Your task to perform on an android device: open a bookmark in the chrome app Image 0: 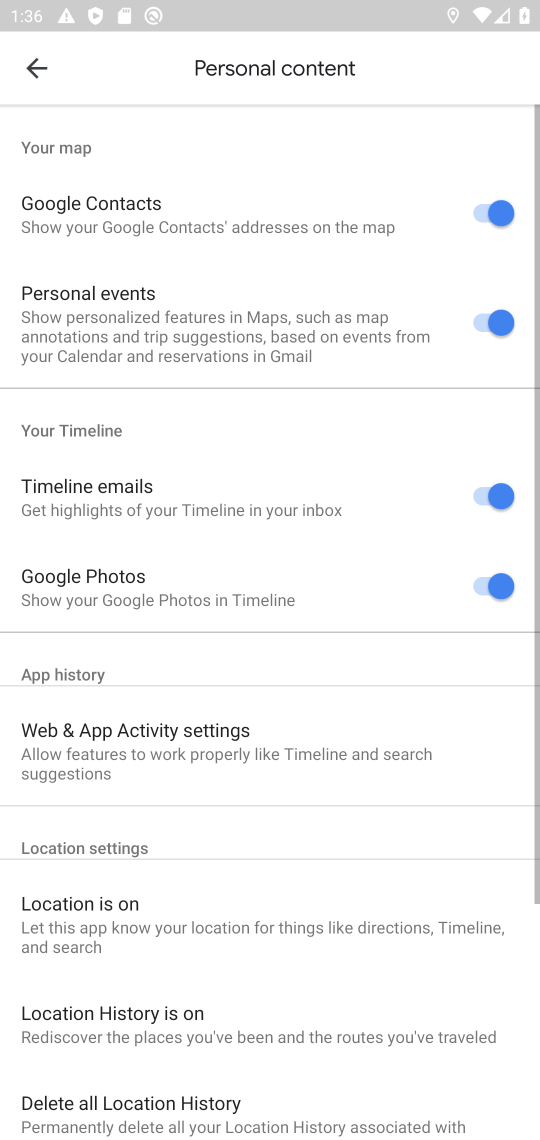
Step 0: press home button
Your task to perform on an android device: open a bookmark in the chrome app Image 1: 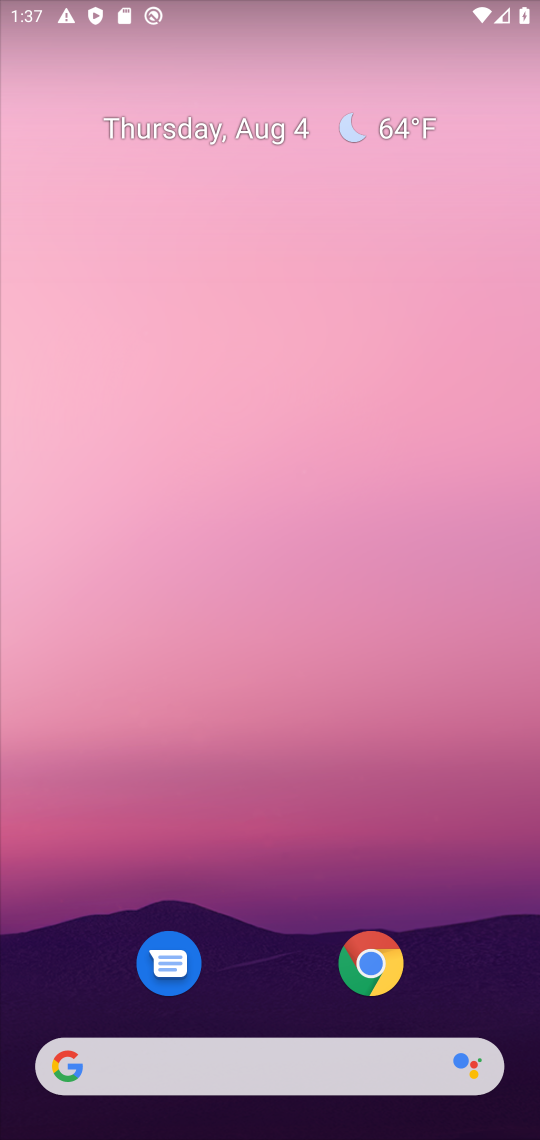
Step 1: click (374, 1005)
Your task to perform on an android device: open a bookmark in the chrome app Image 2: 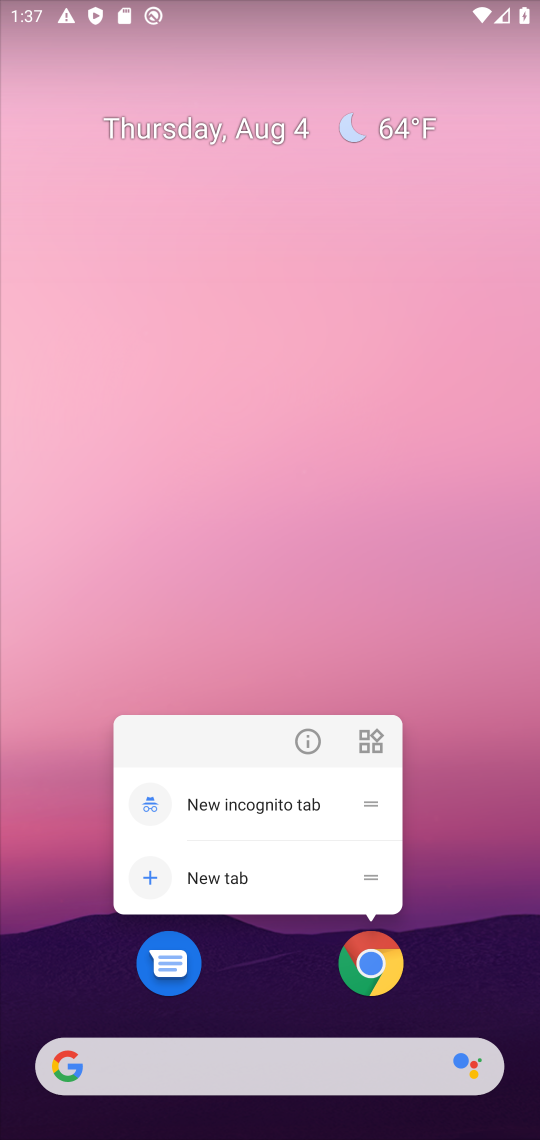
Step 2: click (374, 1005)
Your task to perform on an android device: open a bookmark in the chrome app Image 3: 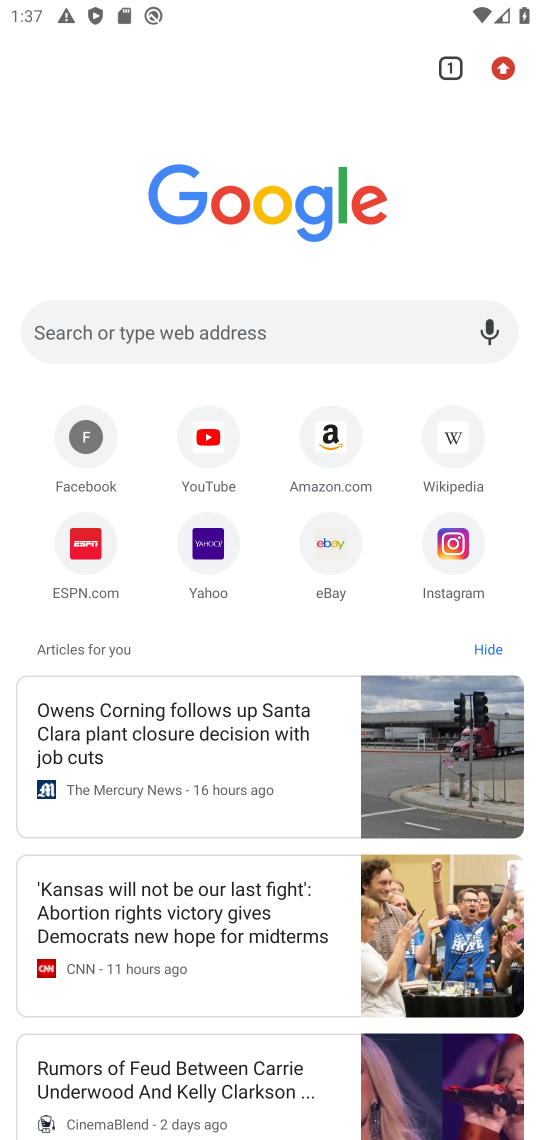
Step 3: drag from (512, 65) to (369, 334)
Your task to perform on an android device: open a bookmark in the chrome app Image 4: 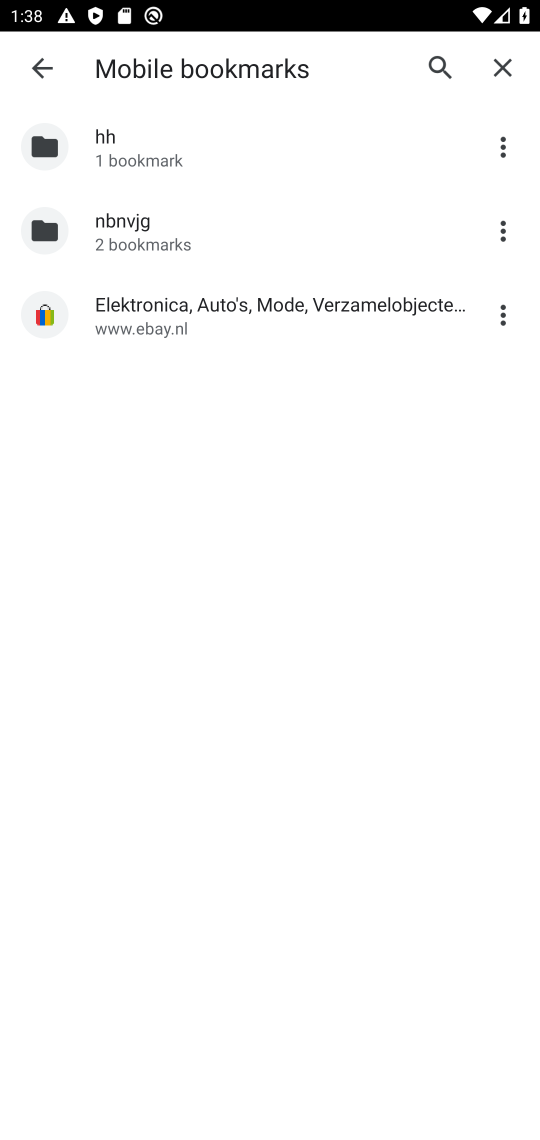
Step 4: click (323, 293)
Your task to perform on an android device: open a bookmark in the chrome app Image 5: 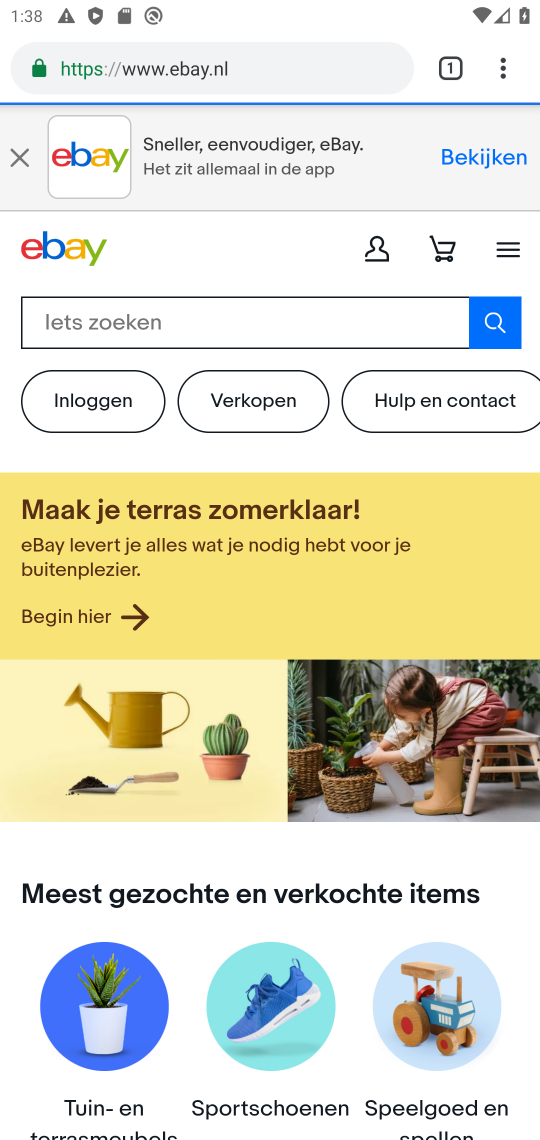
Step 5: task complete